Your task to perform on an android device: delete browsing data in the chrome app Image 0: 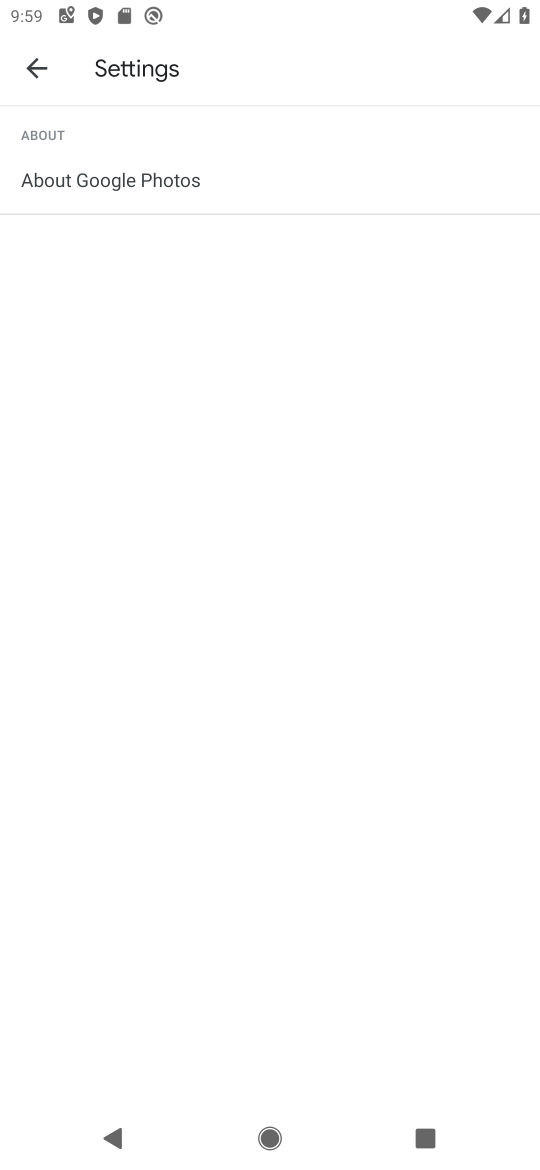
Step 0: press home button
Your task to perform on an android device: delete browsing data in the chrome app Image 1: 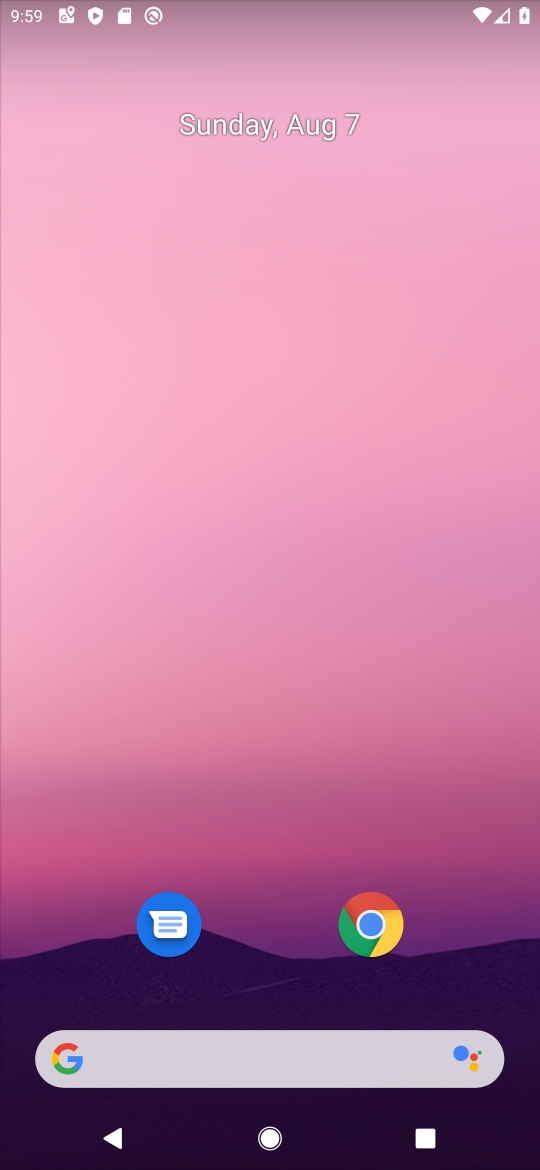
Step 1: click (381, 952)
Your task to perform on an android device: delete browsing data in the chrome app Image 2: 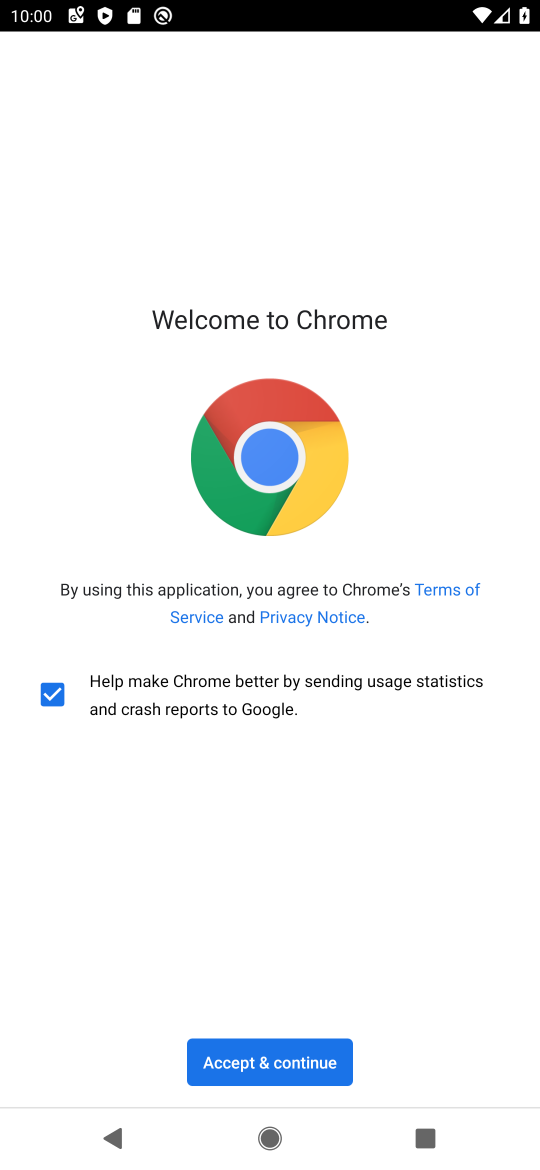
Step 2: click (330, 1063)
Your task to perform on an android device: delete browsing data in the chrome app Image 3: 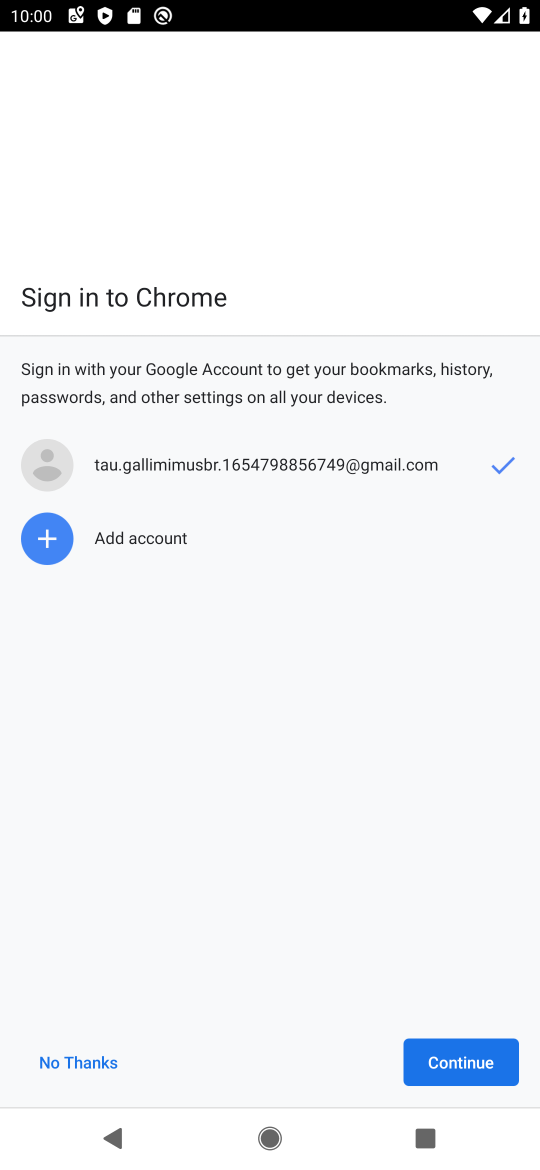
Step 3: click (462, 1064)
Your task to perform on an android device: delete browsing data in the chrome app Image 4: 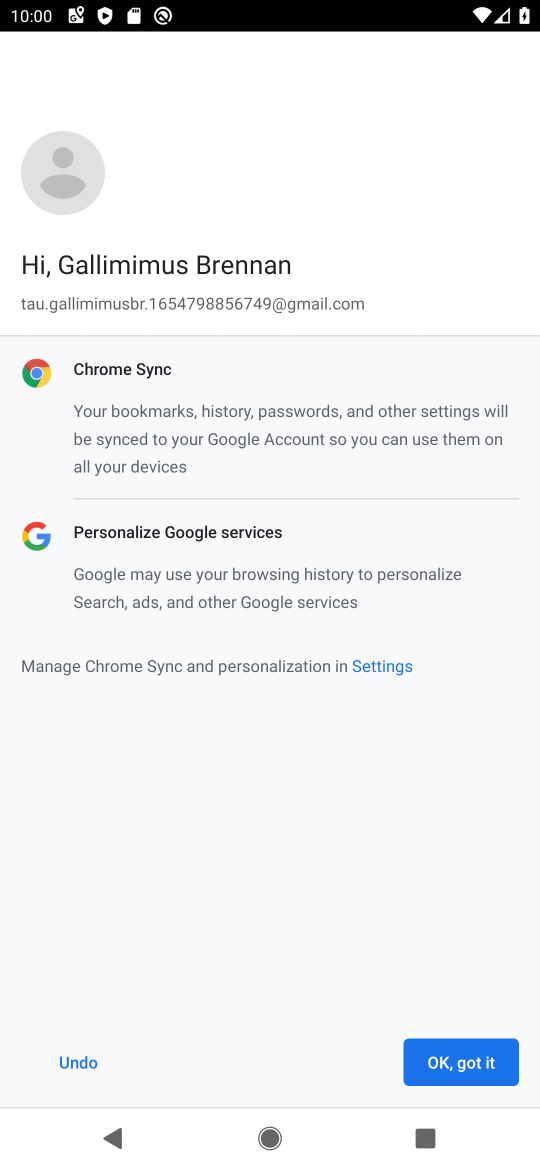
Step 4: click (469, 1051)
Your task to perform on an android device: delete browsing data in the chrome app Image 5: 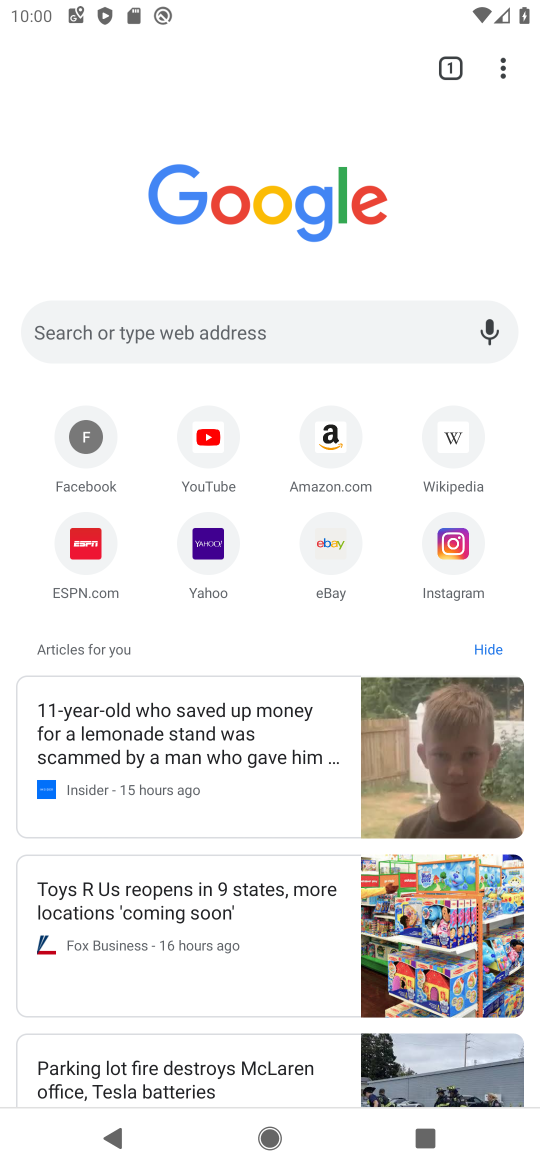
Step 5: click (500, 78)
Your task to perform on an android device: delete browsing data in the chrome app Image 6: 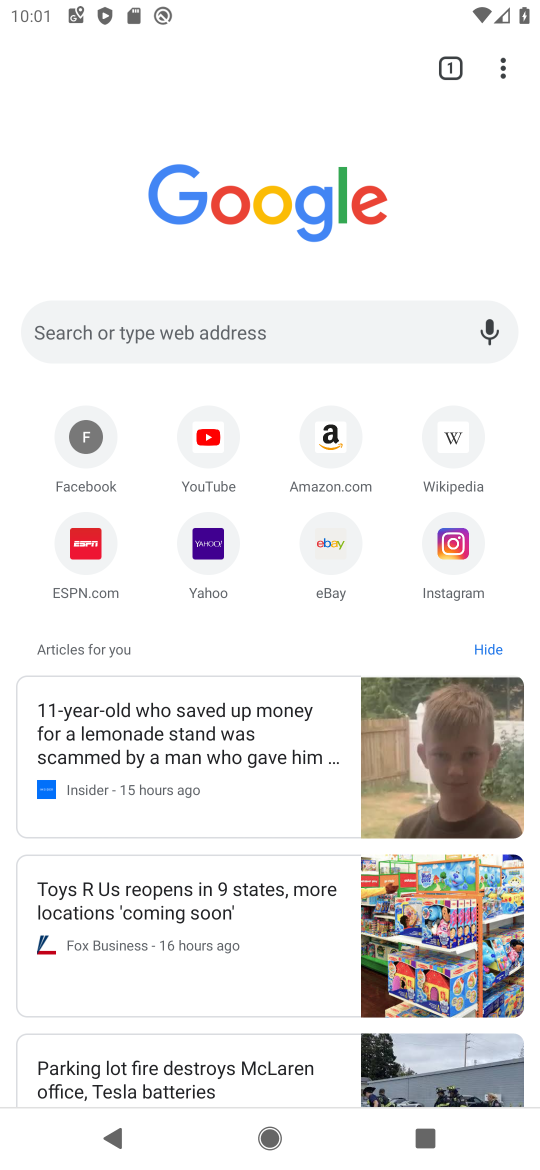
Step 6: click (503, 73)
Your task to perform on an android device: delete browsing data in the chrome app Image 7: 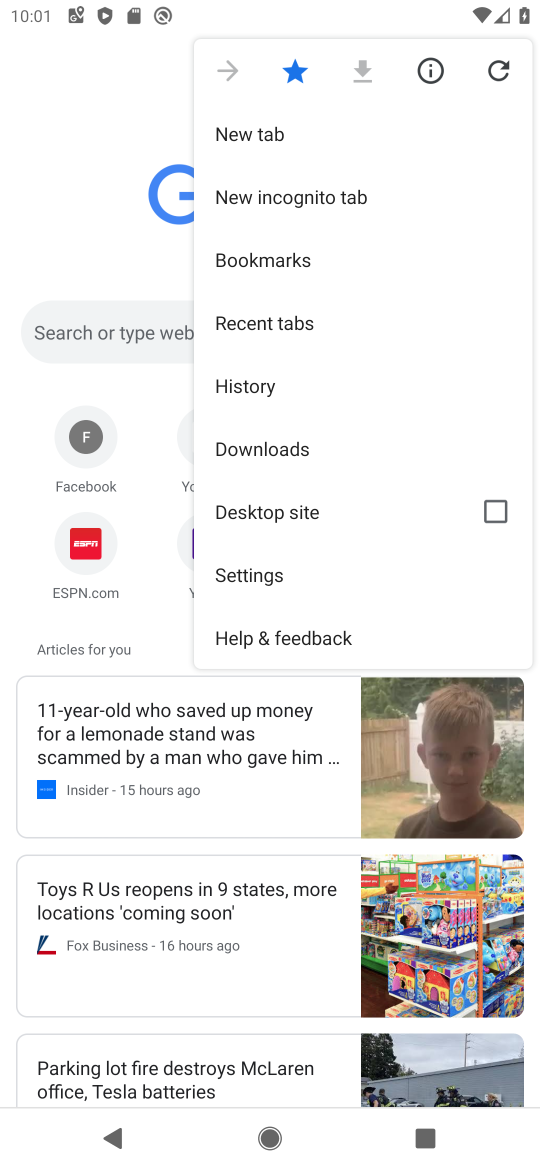
Step 7: click (306, 388)
Your task to perform on an android device: delete browsing data in the chrome app Image 8: 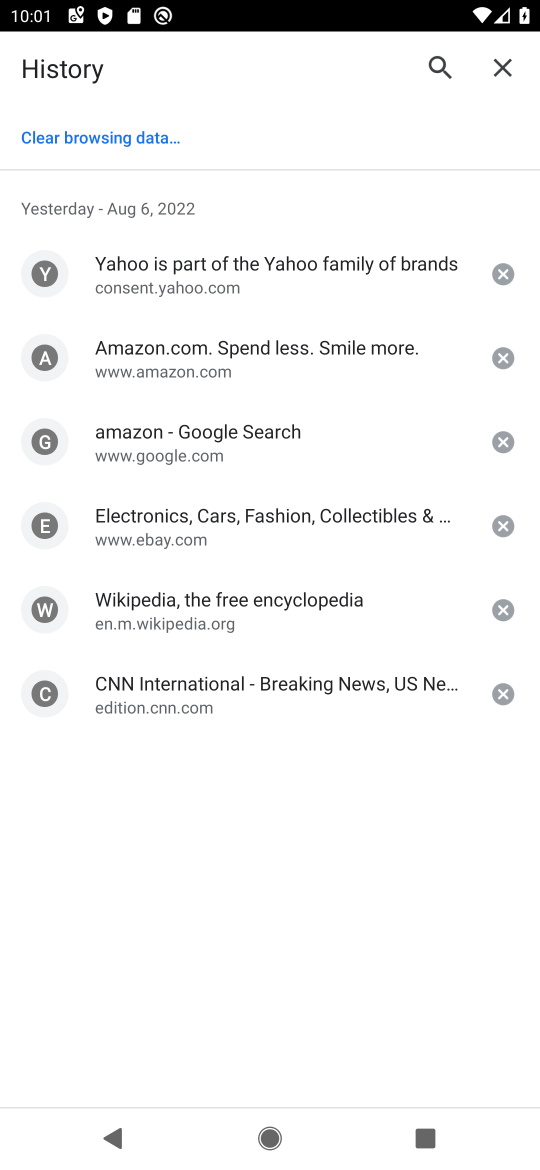
Step 8: click (153, 137)
Your task to perform on an android device: delete browsing data in the chrome app Image 9: 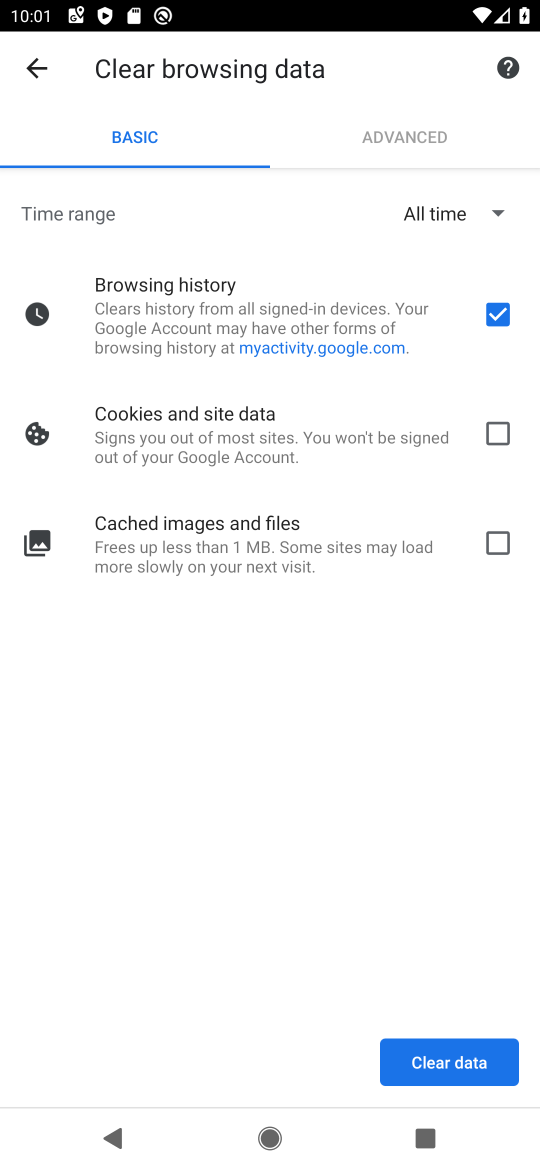
Step 9: click (476, 1065)
Your task to perform on an android device: delete browsing data in the chrome app Image 10: 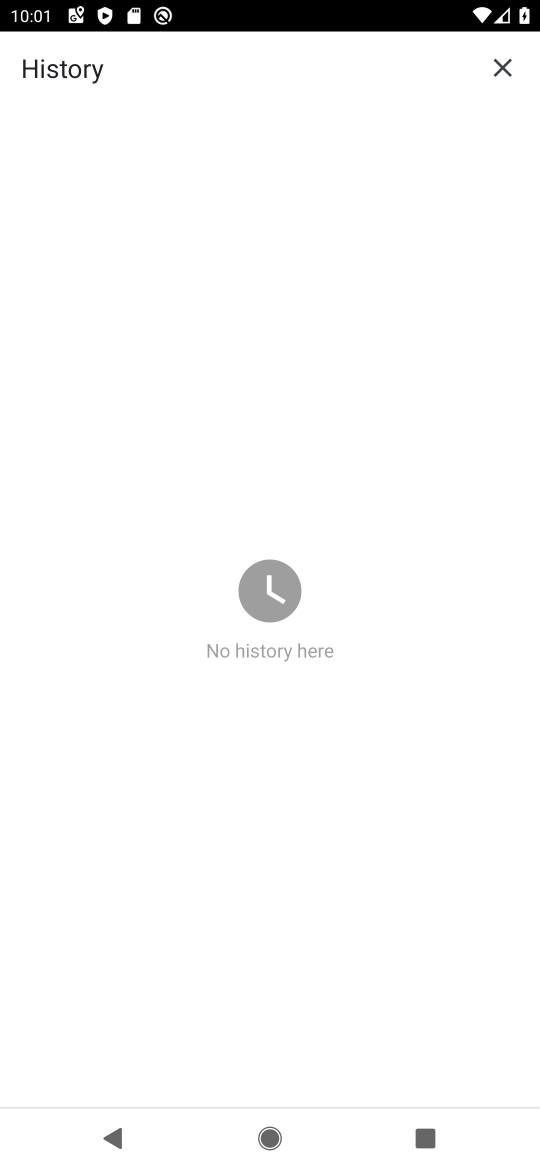
Step 10: task complete